Your task to perform on an android device: toggle notification dots Image 0: 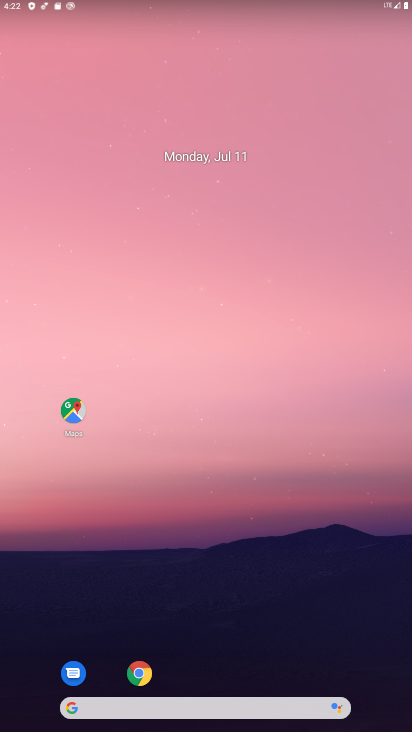
Step 0: drag from (330, 562) to (276, 79)
Your task to perform on an android device: toggle notification dots Image 1: 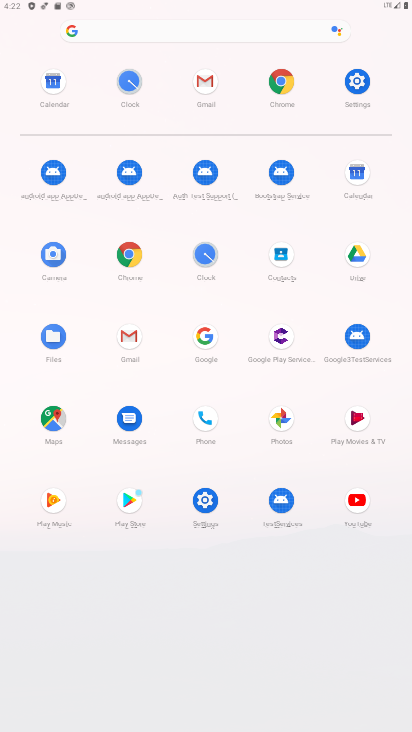
Step 1: click (352, 77)
Your task to perform on an android device: toggle notification dots Image 2: 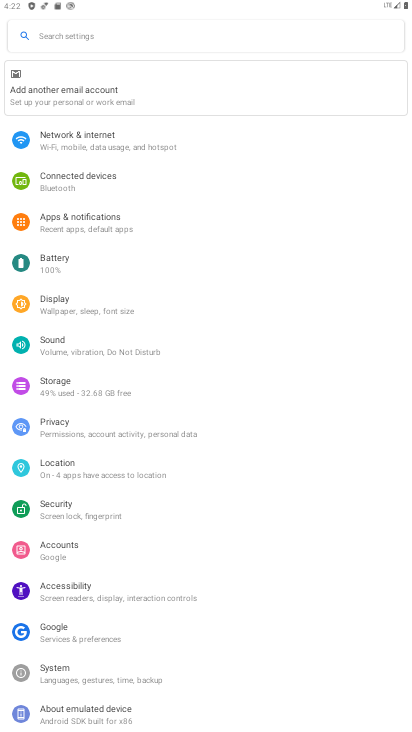
Step 2: click (109, 217)
Your task to perform on an android device: toggle notification dots Image 3: 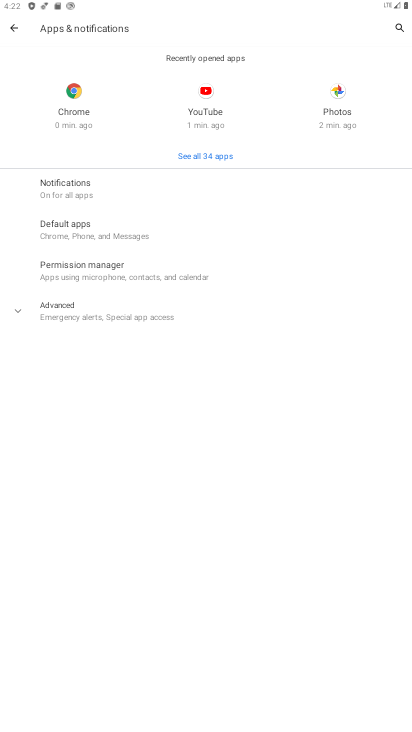
Step 3: click (80, 180)
Your task to perform on an android device: toggle notification dots Image 4: 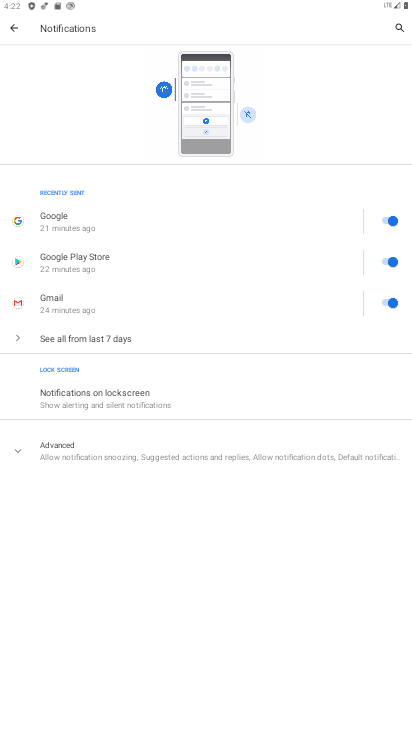
Step 4: click (98, 452)
Your task to perform on an android device: toggle notification dots Image 5: 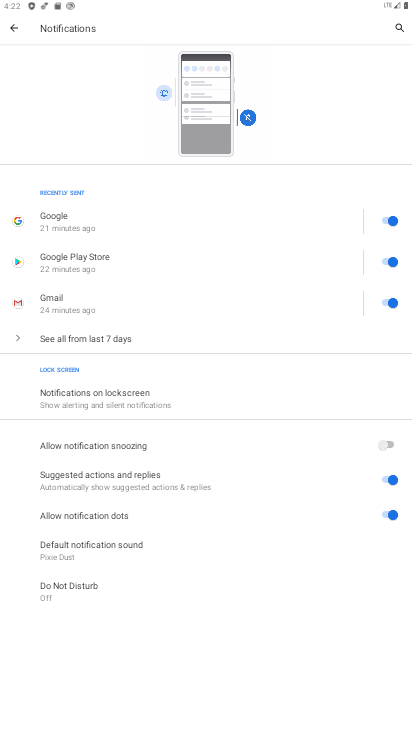
Step 5: click (383, 510)
Your task to perform on an android device: toggle notification dots Image 6: 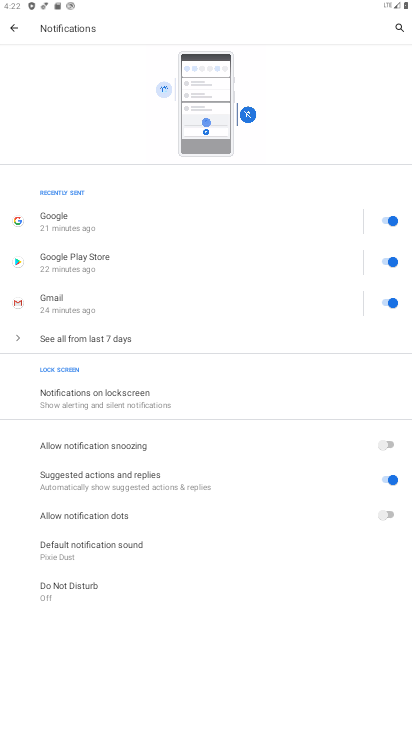
Step 6: task complete